Your task to perform on an android device: Go to network settings Image 0: 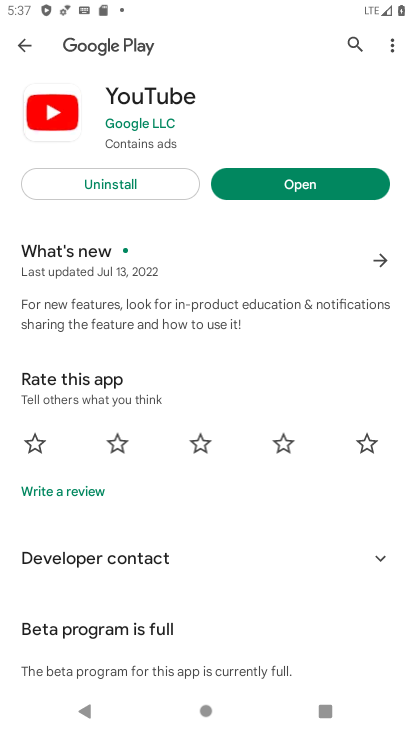
Step 0: press home button
Your task to perform on an android device: Go to network settings Image 1: 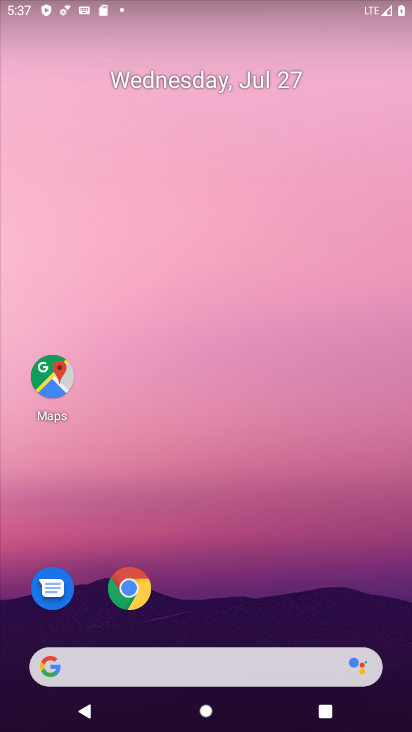
Step 1: drag from (265, 624) to (248, 3)
Your task to perform on an android device: Go to network settings Image 2: 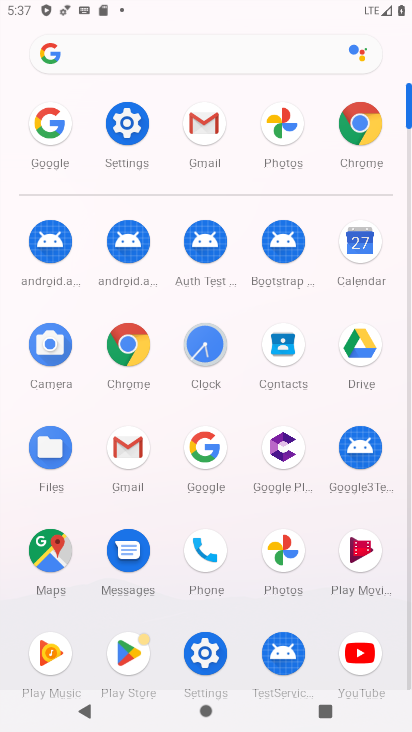
Step 2: click (120, 127)
Your task to perform on an android device: Go to network settings Image 3: 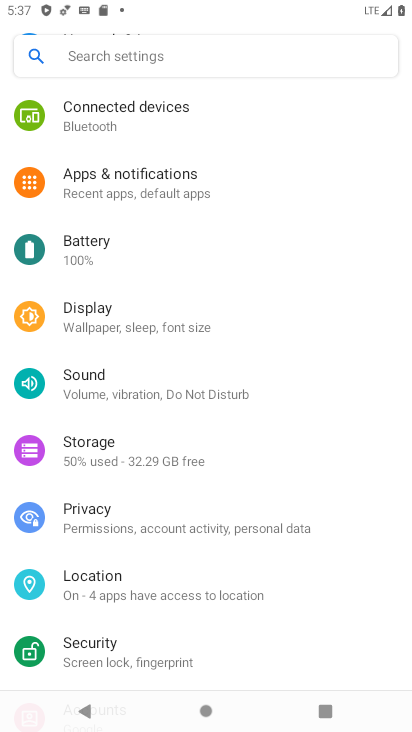
Step 3: drag from (132, 167) to (149, 431)
Your task to perform on an android device: Go to network settings Image 4: 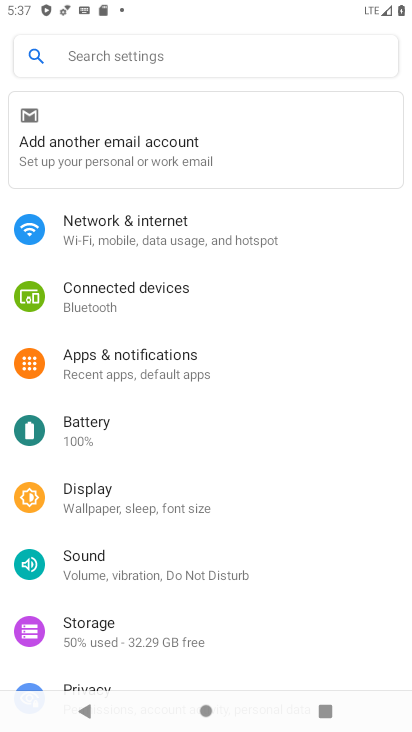
Step 4: click (195, 236)
Your task to perform on an android device: Go to network settings Image 5: 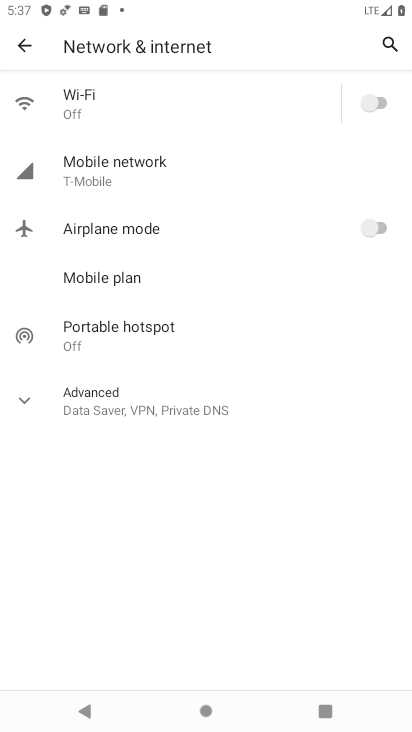
Step 5: click (138, 172)
Your task to perform on an android device: Go to network settings Image 6: 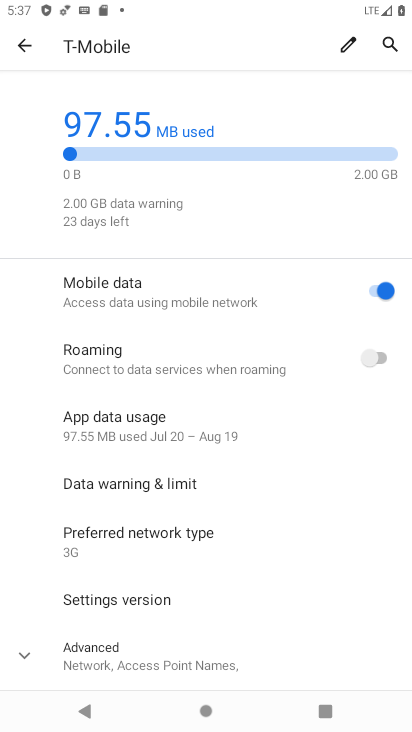
Step 6: task complete